Your task to perform on an android device: Open Google Chrome and click the shortcut for Amazon.com Image 0: 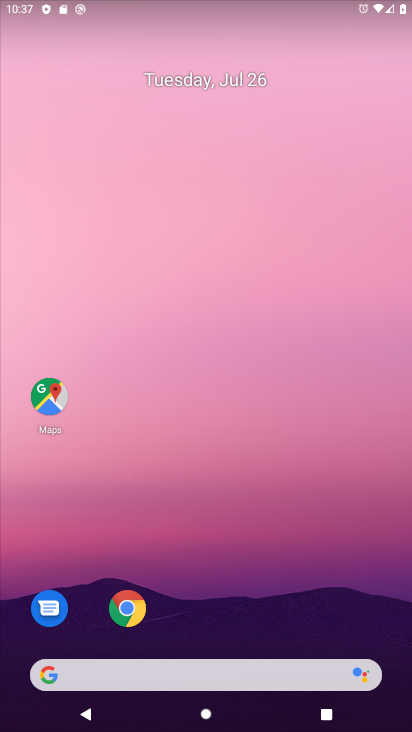
Step 0: click (129, 616)
Your task to perform on an android device: Open Google Chrome and click the shortcut for Amazon.com Image 1: 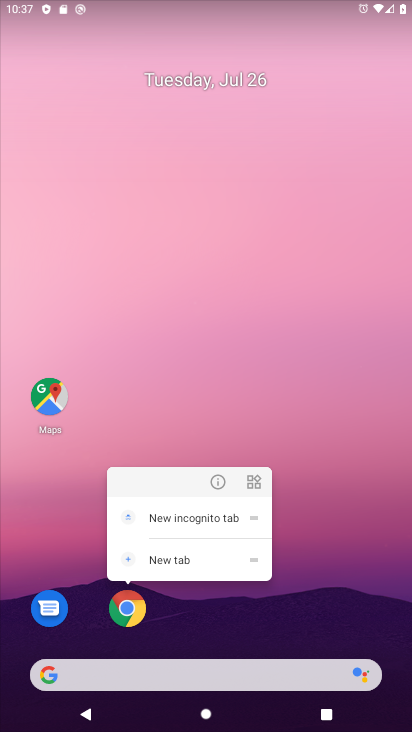
Step 1: click (128, 623)
Your task to perform on an android device: Open Google Chrome and click the shortcut for Amazon.com Image 2: 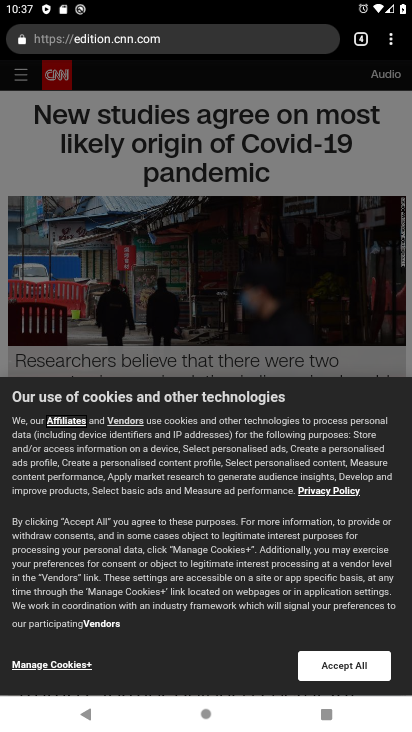
Step 2: click (394, 47)
Your task to perform on an android device: Open Google Chrome and click the shortcut for Amazon.com Image 3: 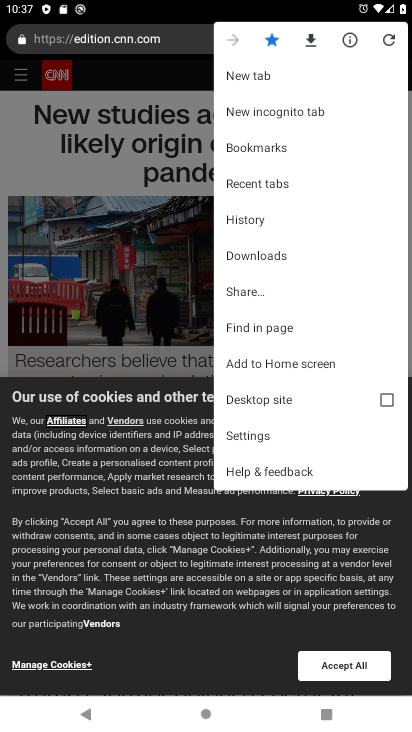
Step 3: click (256, 77)
Your task to perform on an android device: Open Google Chrome and click the shortcut for Amazon.com Image 4: 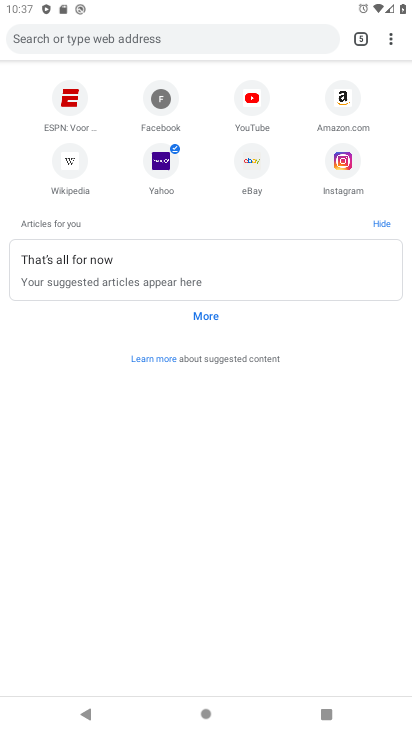
Step 4: click (346, 92)
Your task to perform on an android device: Open Google Chrome and click the shortcut for Amazon.com Image 5: 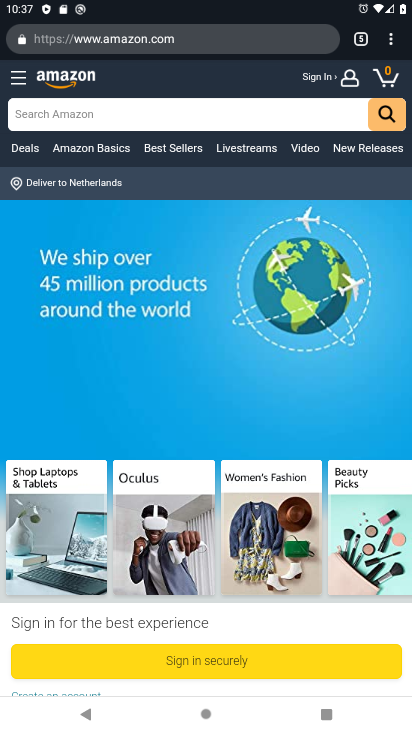
Step 5: task complete